Your task to perform on an android device: Open CNN.com Image 0: 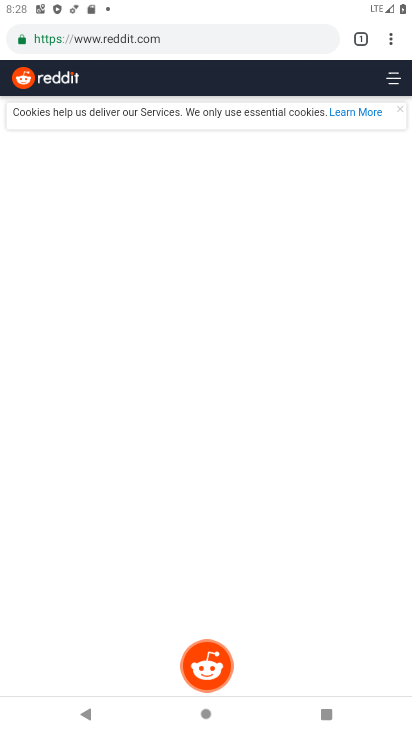
Step 0: click (151, 34)
Your task to perform on an android device: Open CNN.com Image 1: 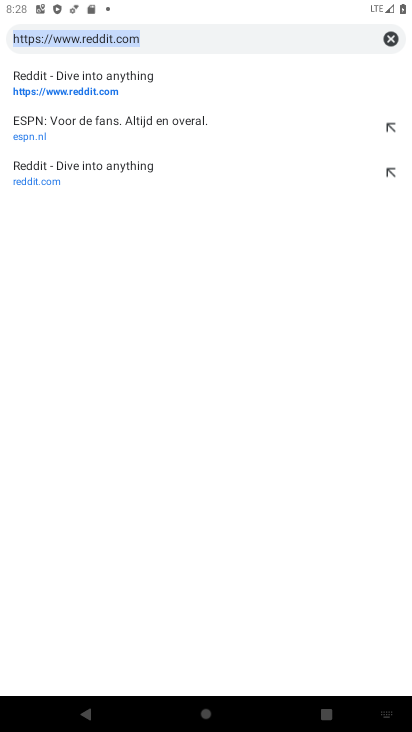
Step 1: type "cnn.com"
Your task to perform on an android device: Open CNN.com Image 2: 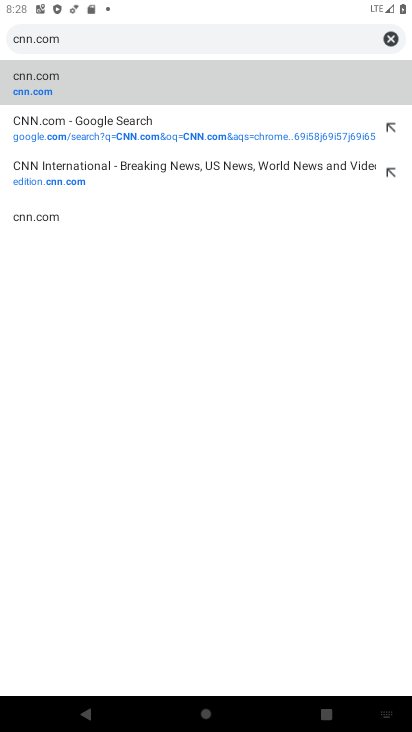
Step 2: click (74, 94)
Your task to perform on an android device: Open CNN.com Image 3: 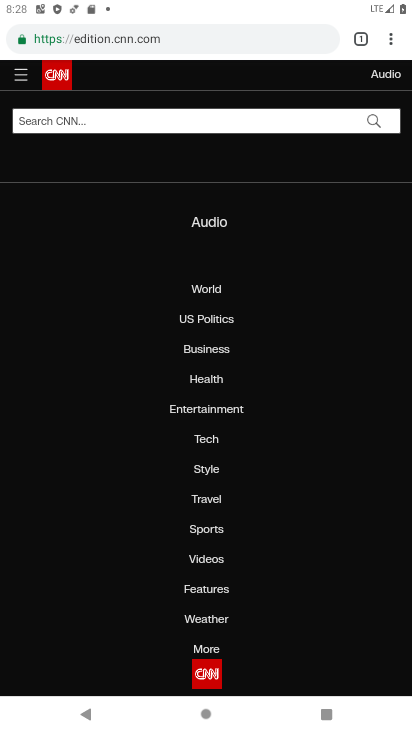
Step 3: task complete